Your task to perform on an android device: toggle notification dots Image 0: 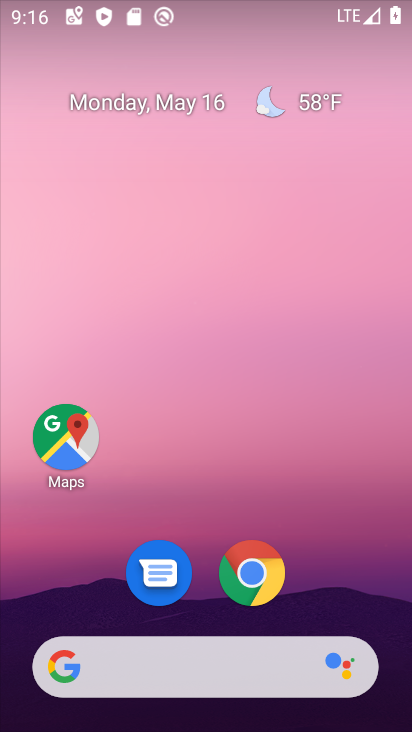
Step 0: drag from (214, 724) to (215, 196)
Your task to perform on an android device: toggle notification dots Image 1: 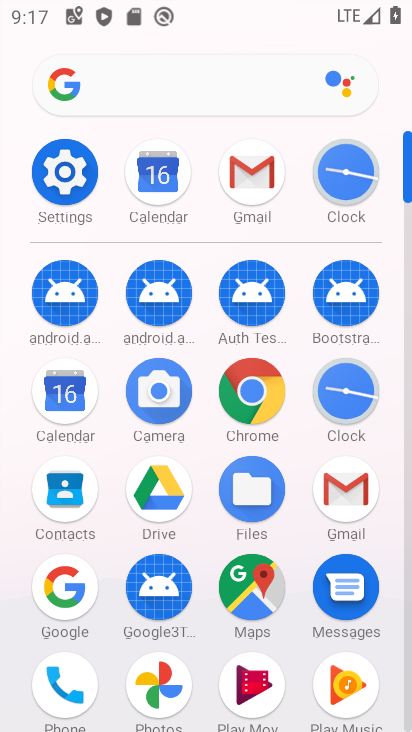
Step 1: click (61, 177)
Your task to perform on an android device: toggle notification dots Image 2: 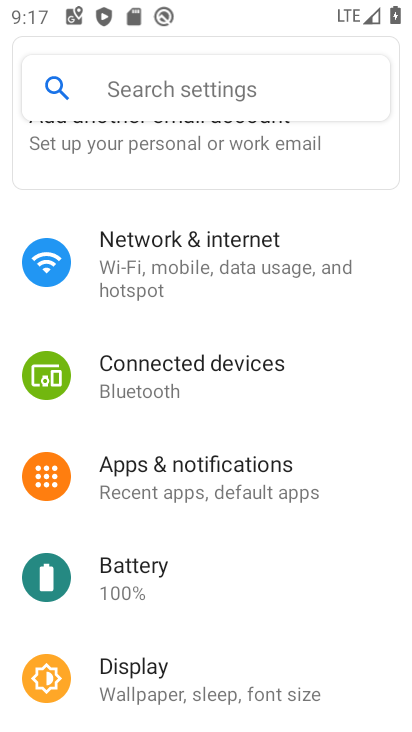
Step 2: click (207, 473)
Your task to perform on an android device: toggle notification dots Image 3: 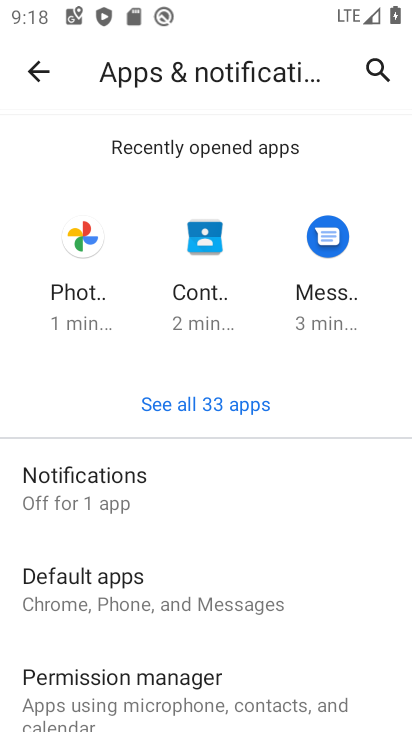
Step 3: click (80, 489)
Your task to perform on an android device: toggle notification dots Image 4: 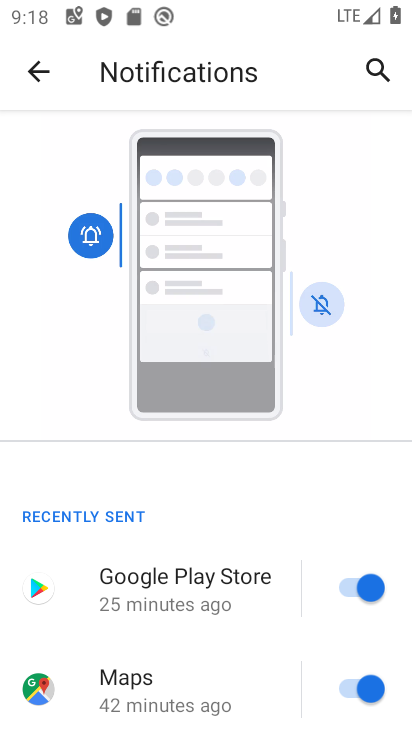
Step 4: drag from (245, 659) to (248, 278)
Your task to perform on an android device: toggle notification dots Image 5: 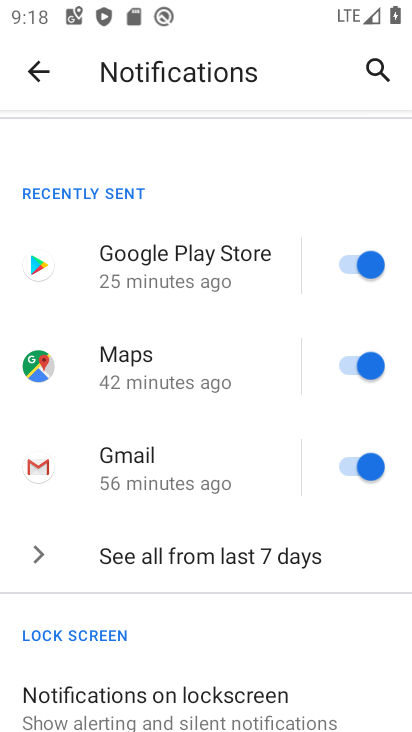
Step 5: drag from (194, 656) to (201, 233)
Your task to perform on an android device: toggle notification dots Image 6: 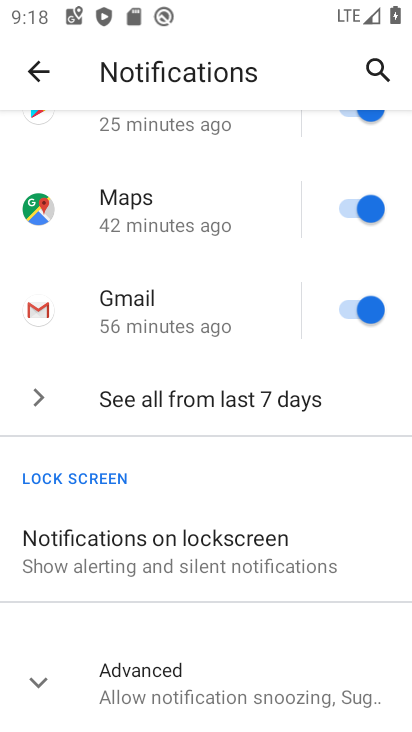
Step 6: click (154, 663)
Your task to perform on an android device: toggle notification dots Image 7: 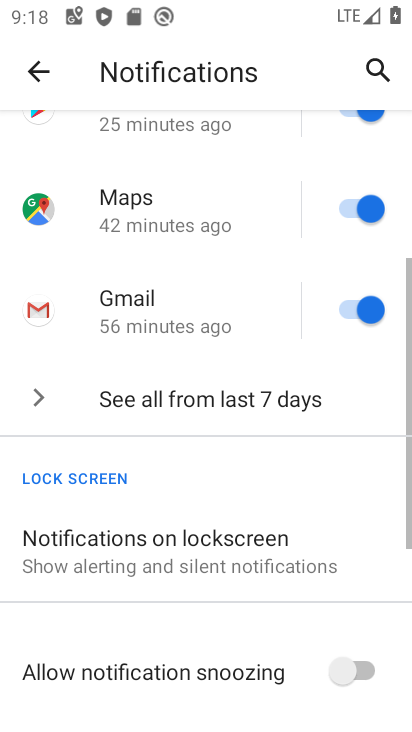
Step 7: drag from (195, 684) to (177, 325)
Your task to perform on an android device: toggle notification dots Image 8: 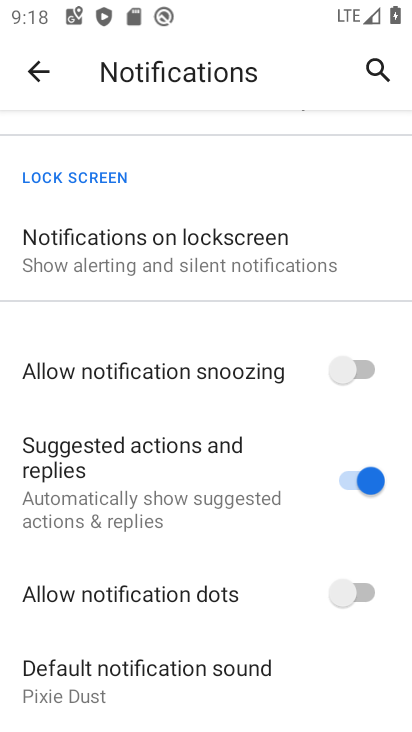
Step 8: click (367, 593)
Your task to perform on an android device: toggle notification dots Image 9: 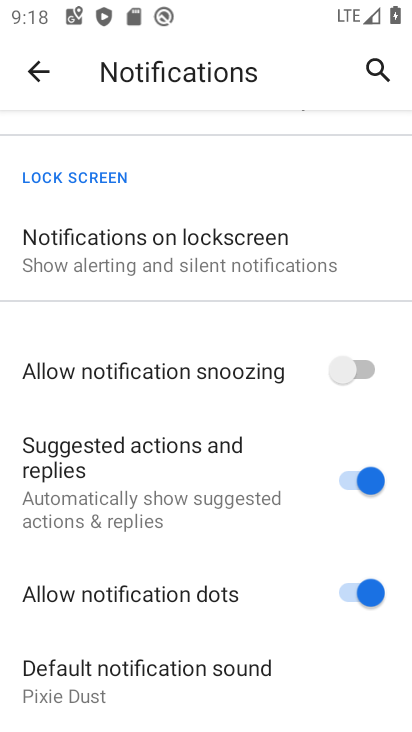
Step 9: task complete